Your task to perform on an android device: turn off data saver in the chrome app Image 0: 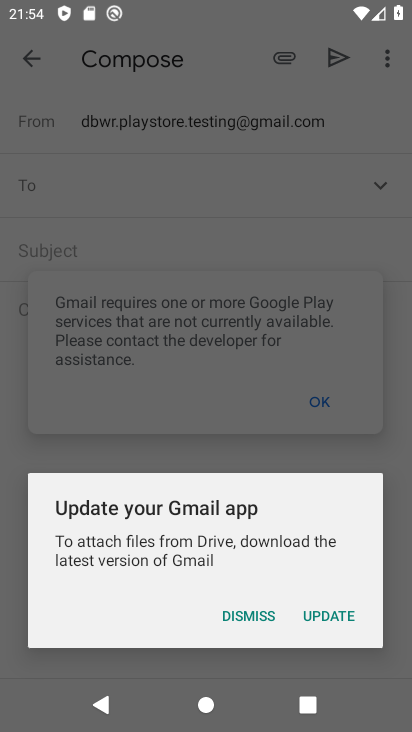
Step 0: press home button
Your task to perform on an android device: turn off data saver in the chrome app Image 1: 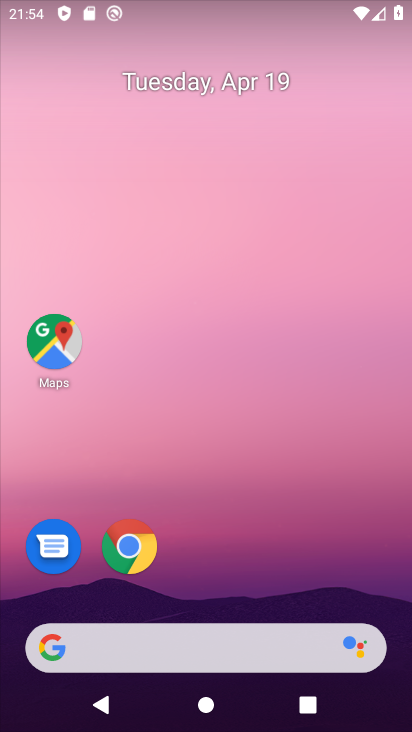
Step 1: drag from (194, 607) to (208, 5)
Your task to perform on an android device: turn off data saver in the chrome app Image 2: 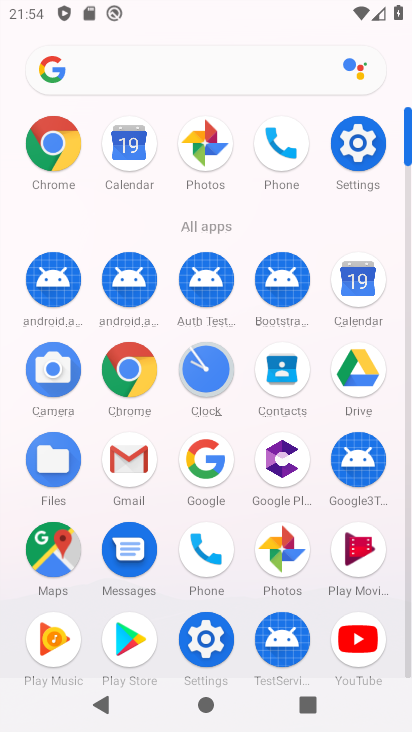
Step 2: click (130, 366)
Your task to perform on an android device: turn off data saver in the chrome app Image 3: 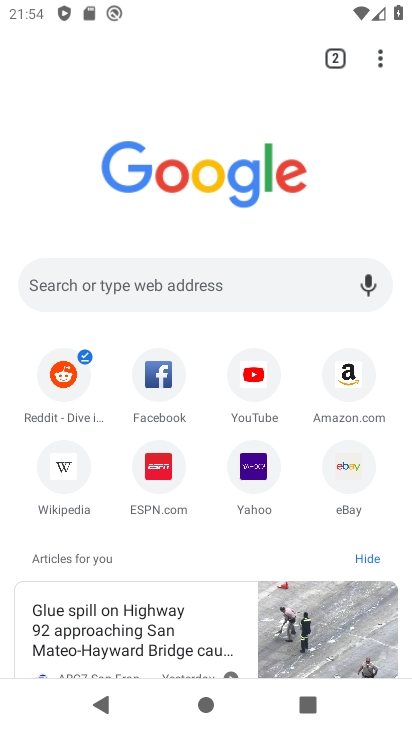
Step 3: click (369, 72)
Your task to perform on an android device: turn off data saver in the chrome app Image 4: 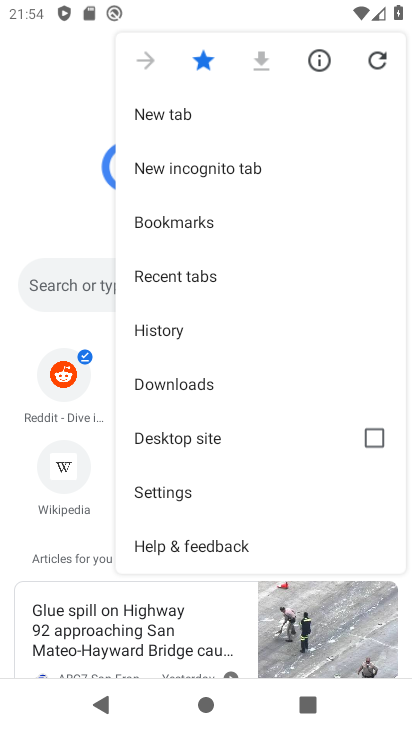
Step 4: click (179, 499)
Your task to perform on an android device: turn off data saver in the chrome app Image 5: 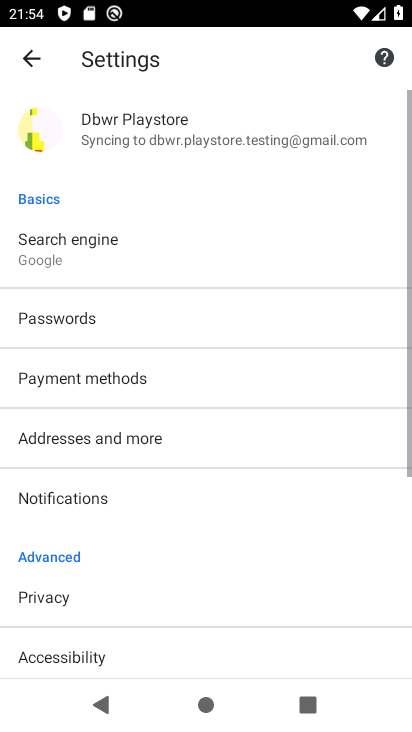
Step 5: drag from (182, 499) to (161, 64)
Your task to perform on an android device: turn off data saver in the chrome app Image 6: 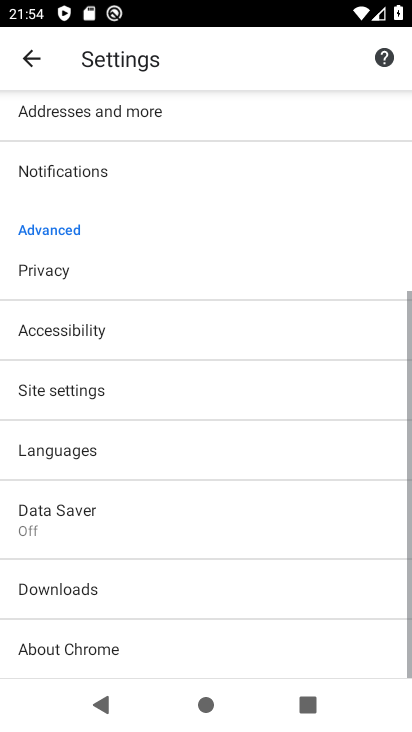
Step 6: click (134, 503)
Your task to perform on an android device: turn off data saver in the chrome app Image 7: 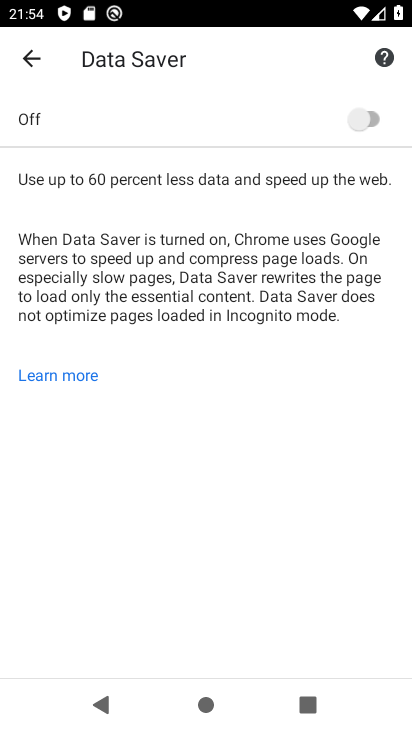
Step 7: task complete